Your task to perform on an android device: Open Google Maps Image 0: 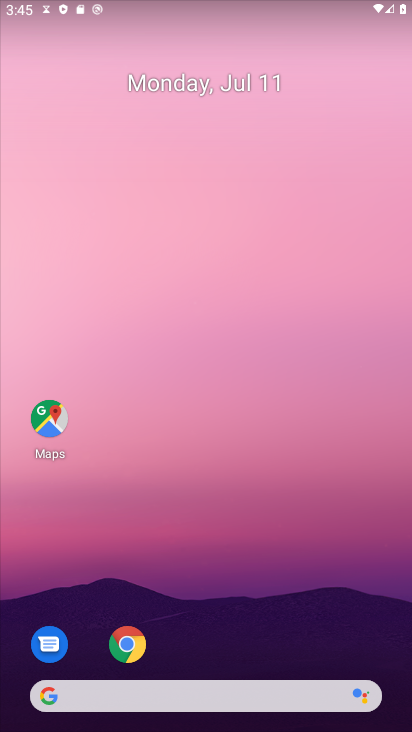
Step 0: drag from (197, 728) to (193, 0)
Your task to perform on an android device: Open Google Maps Image 1: 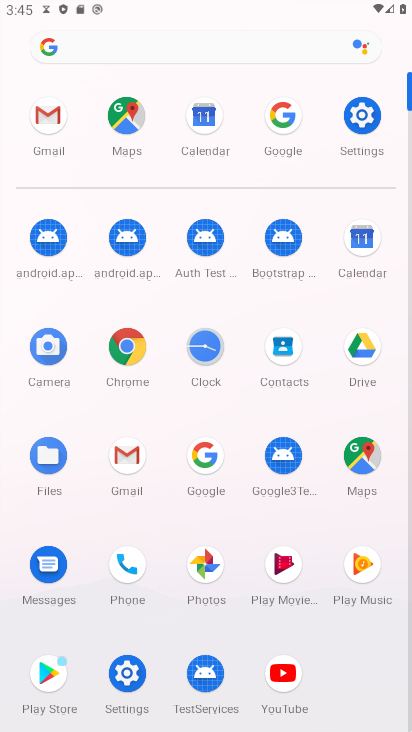
Step 1: click (361, 454)
Your task to perform on an android device: Open Google Maps Image 2: 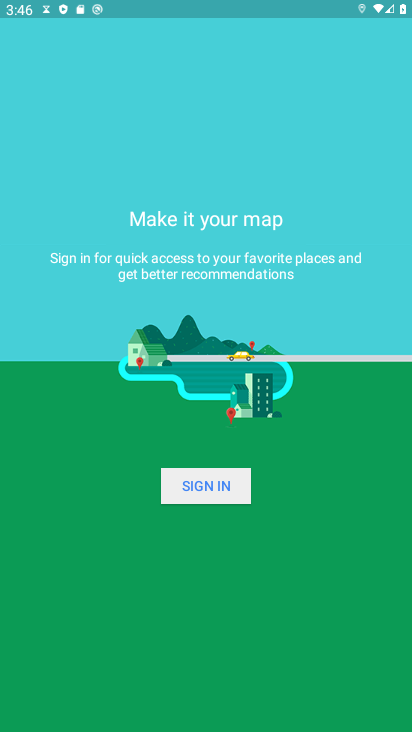
Step 2: click (216, 202)
Your task to perform on an android device: Open Google Maps Image 3: 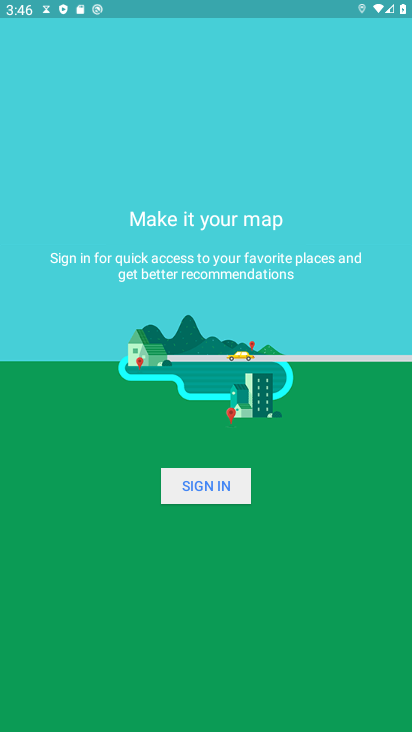
Step 3: task complete